Your task to perform on an android device: Open Chrome and go to settings Image 0: 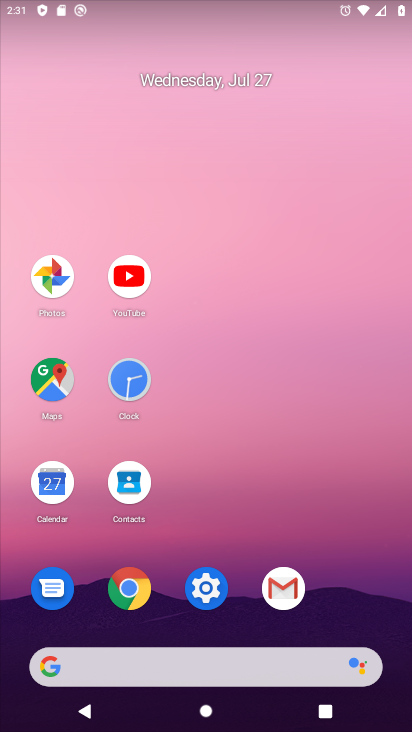
Step 0: click (129, 588)
Your task to perform on an android device: Open Chrome and go to settings Image 1: 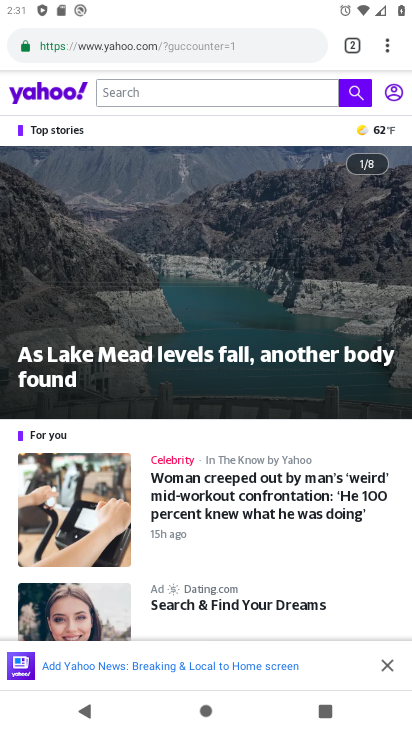
Step 1: click (388, 42)
Your task to perform on an android device: Open Chrome and go to settings Image 2: 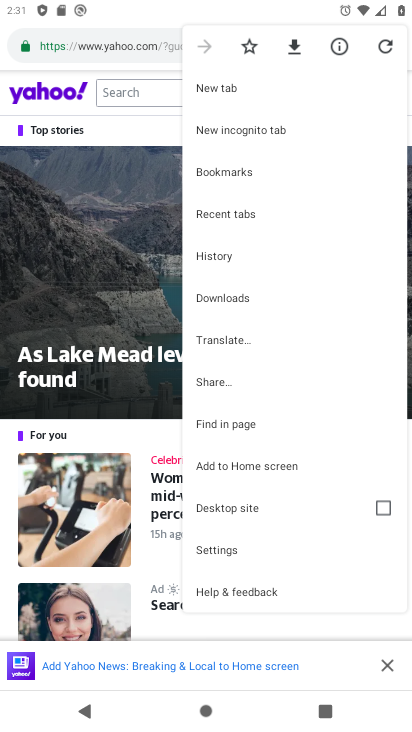
Step 2: click (211, 547)
Your task to perform on an android device: Open Chrome and go to settings Image 3: 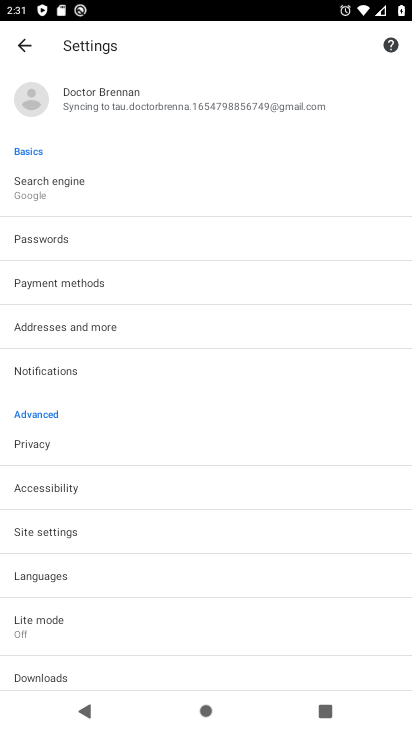
Step 3: task complete